Your task to perform on an android device: Open Youtube and go to the subscriptions tab Image 0: 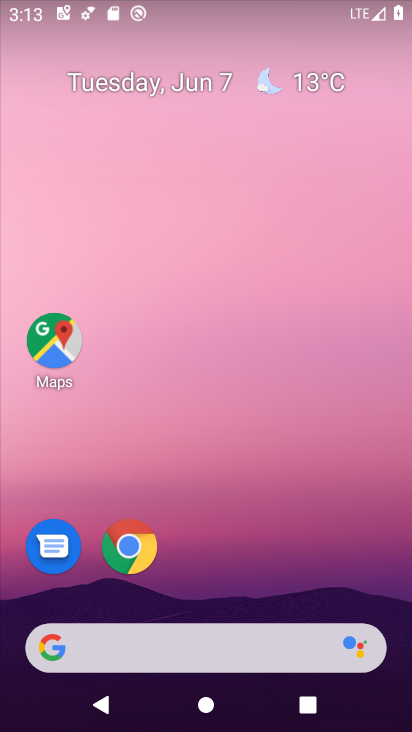
Step 0: drag from (358, 578) to (351, 329)
Your task to perform on an android device: Open Youtube and go to the subscriptions tab Image 1: 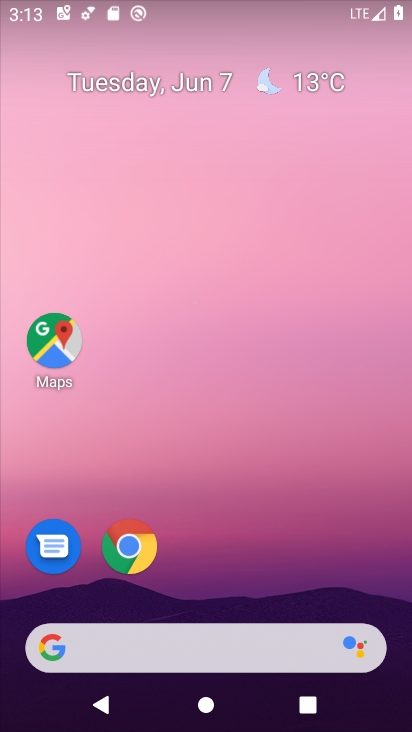
Step 1: drag from (337, 531) to (336, 199)
Your task to perform on an android device: Open Youtube and go to the subscriptions tab Image 2: 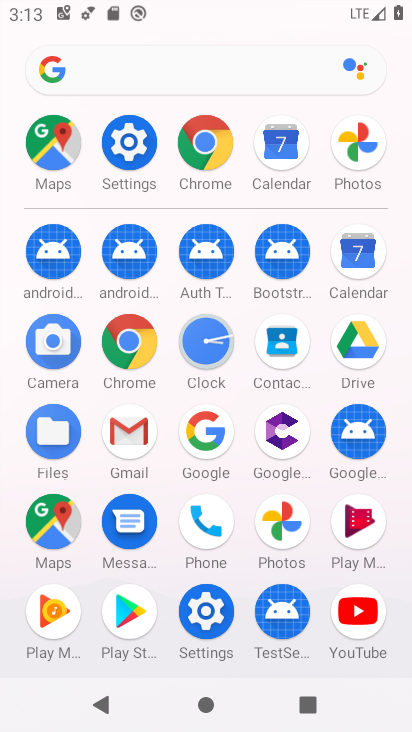
Step 2: click (368, 609)
Your task to perform on an android device: Open Youtube and go to the subscriptions tab Image 3: 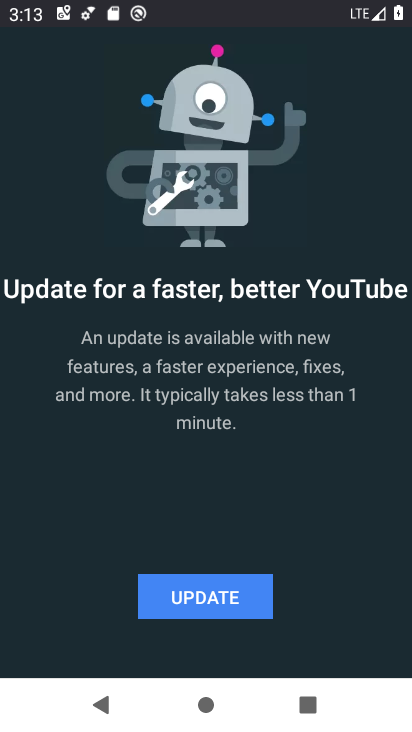
Step 3: click (249, 600)
Your task to perform on an android device: Open Youtube and go to the subscriptions tab Image 4: 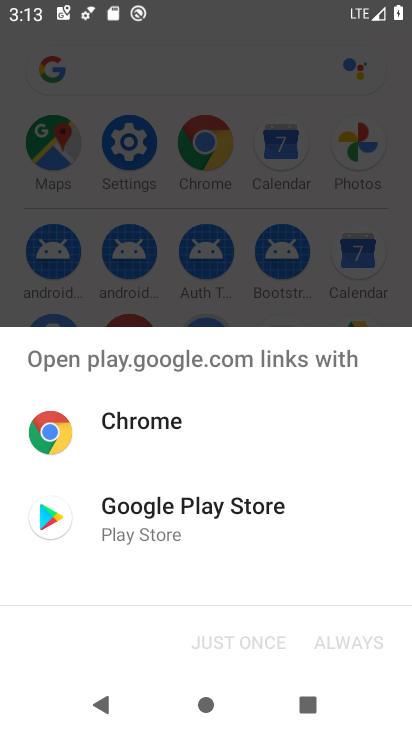
Step 4: click (180, 508)
Your task to perform on an android device: Open Youtube and go to the subscriptions tab Image 5: 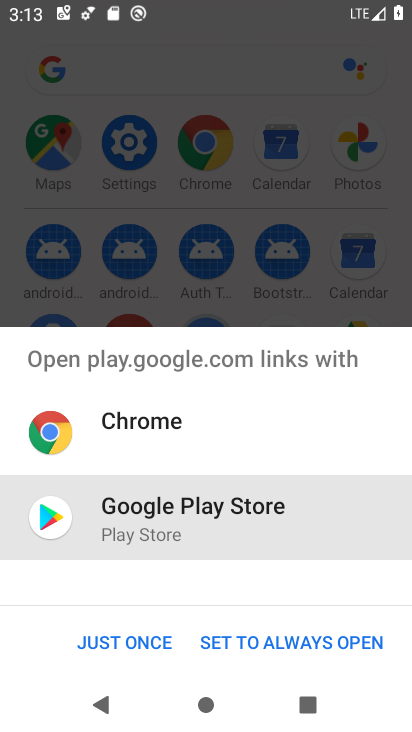
Step 5: click (137, 647)
Your task to perform on an android device: Open Youtube and go to the subscriptions tab Image 6: 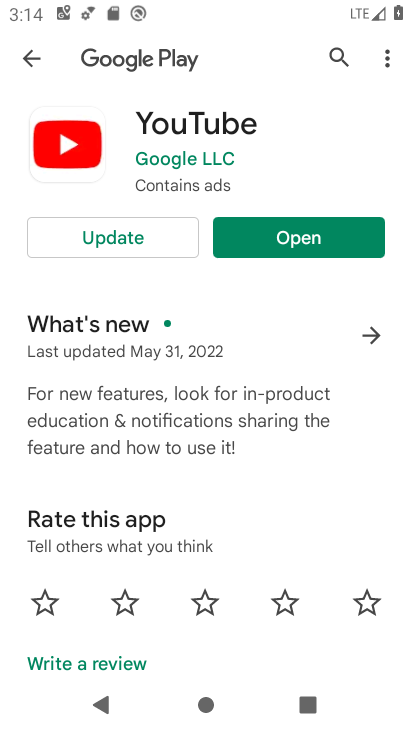
Step 6: click (138, 244)
Your task to perform on an android device: Open Youtube and go to the subscriptions tab Image 7: 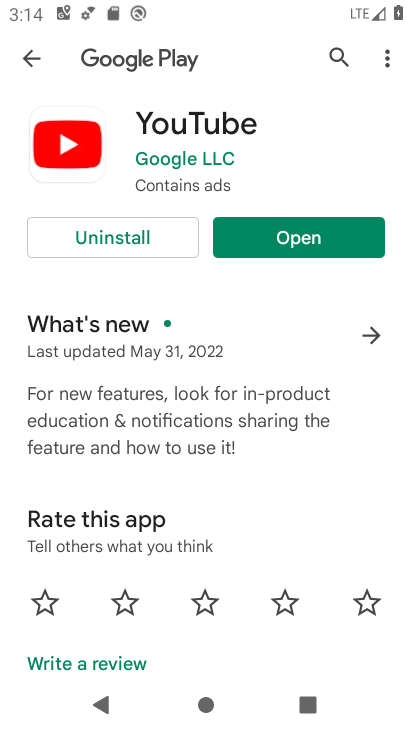
Step 7: click (344, 250)
Your task to perform on an android device: Open Youtube and go to the subscriptions tab Image 8: 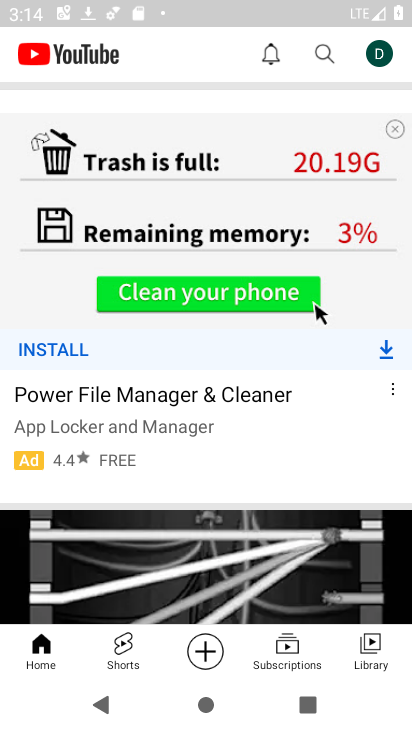
Step 8: click (298, 647)
Your task to perform on an android device: Open Youtube and go to the subscriptions tab Image 9: 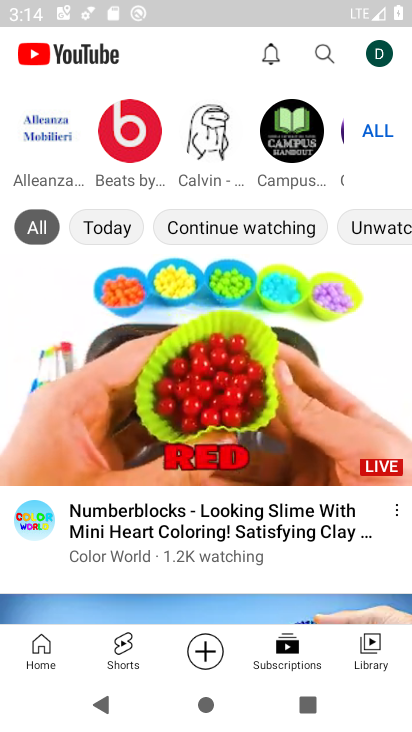
Step 9: task complete